Your task to perform on an android device: Go to battery settings Image 0: 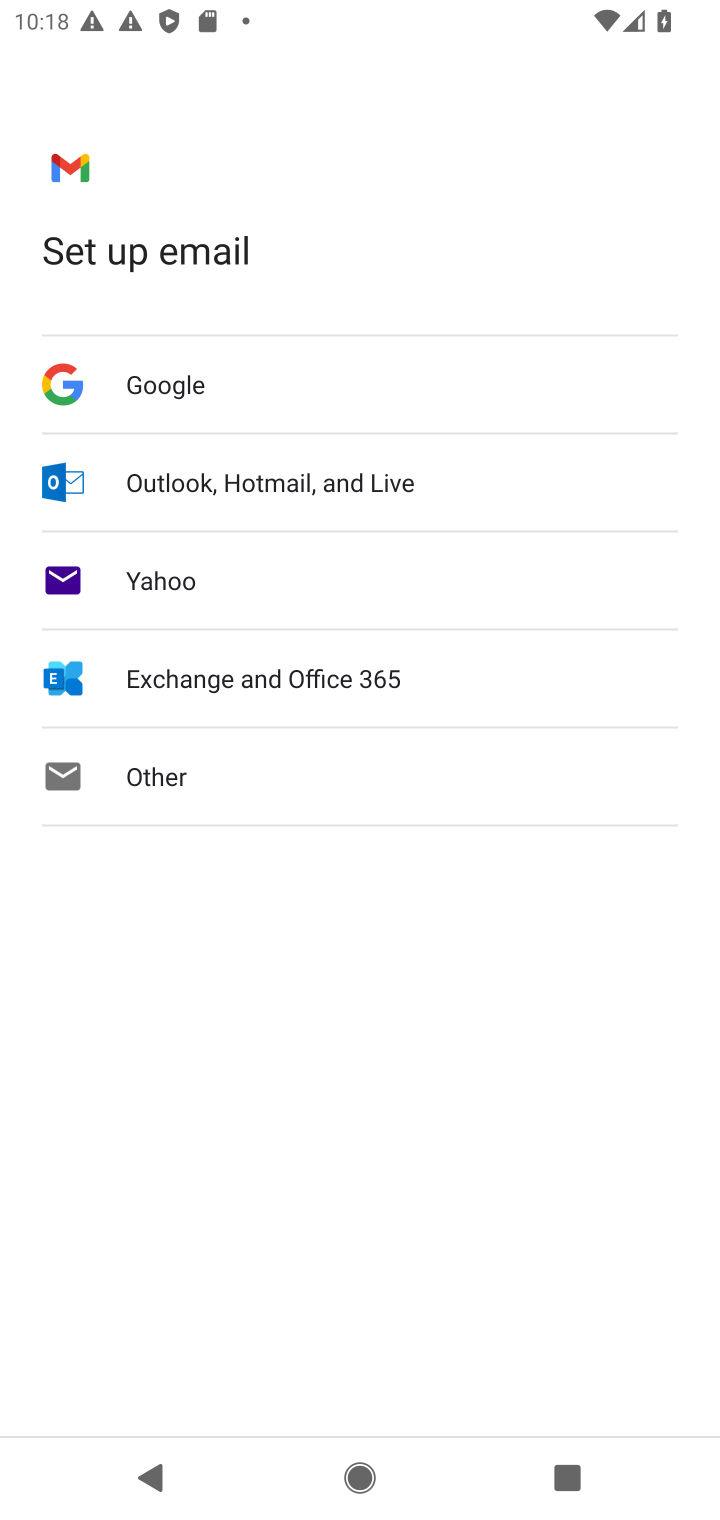
Step 0: press home button
Your task to perform on an android device: Go to battery settings Image 1: 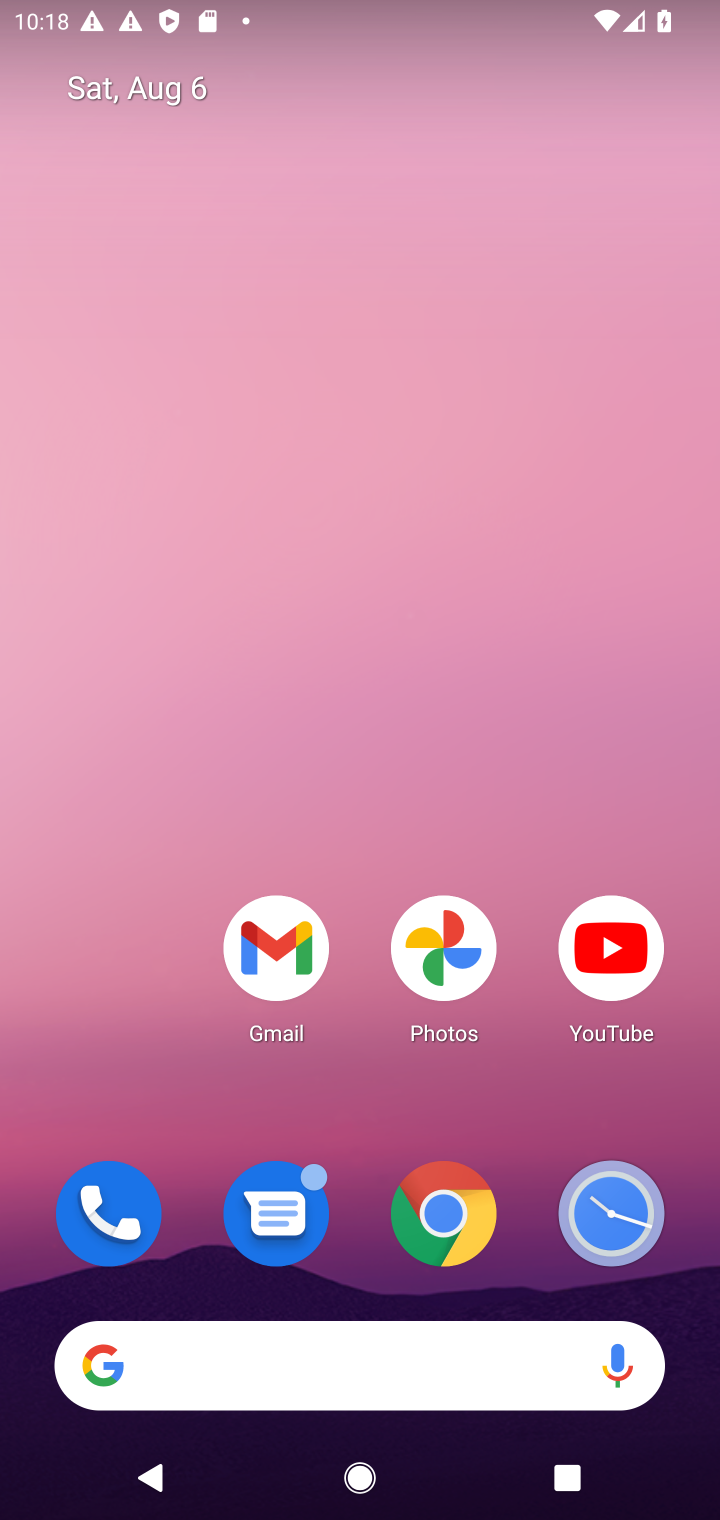
Step 1: drag from (415, 797) to (605, 74)
Your task to perform on an android device: Go to battery settings Image 2: 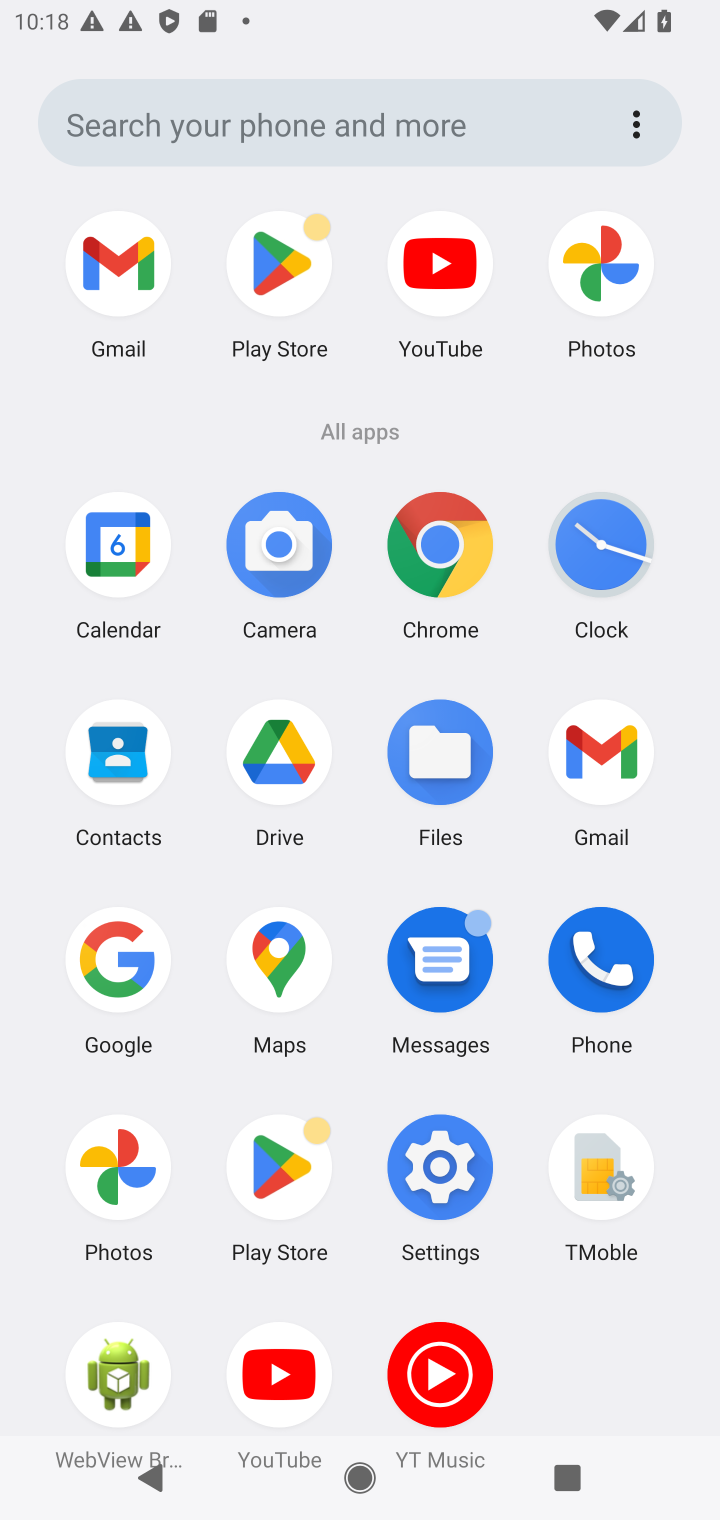
Step 2: click (450, 1170)
Your task to perform on an android device: Go to battery settings Image 3: 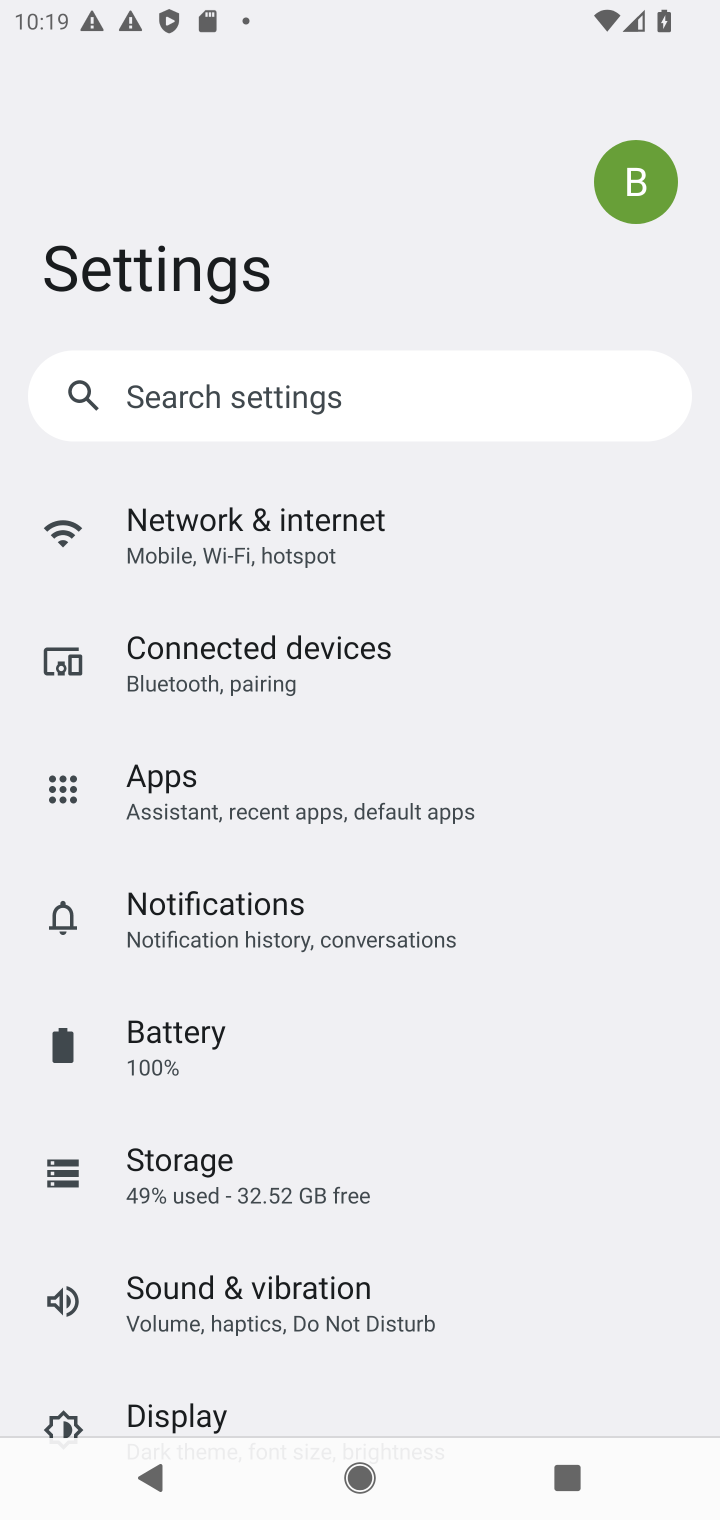
Step 3: click (243, 1067)
Your task to perform on an android device: Go to battery settings Image 4: 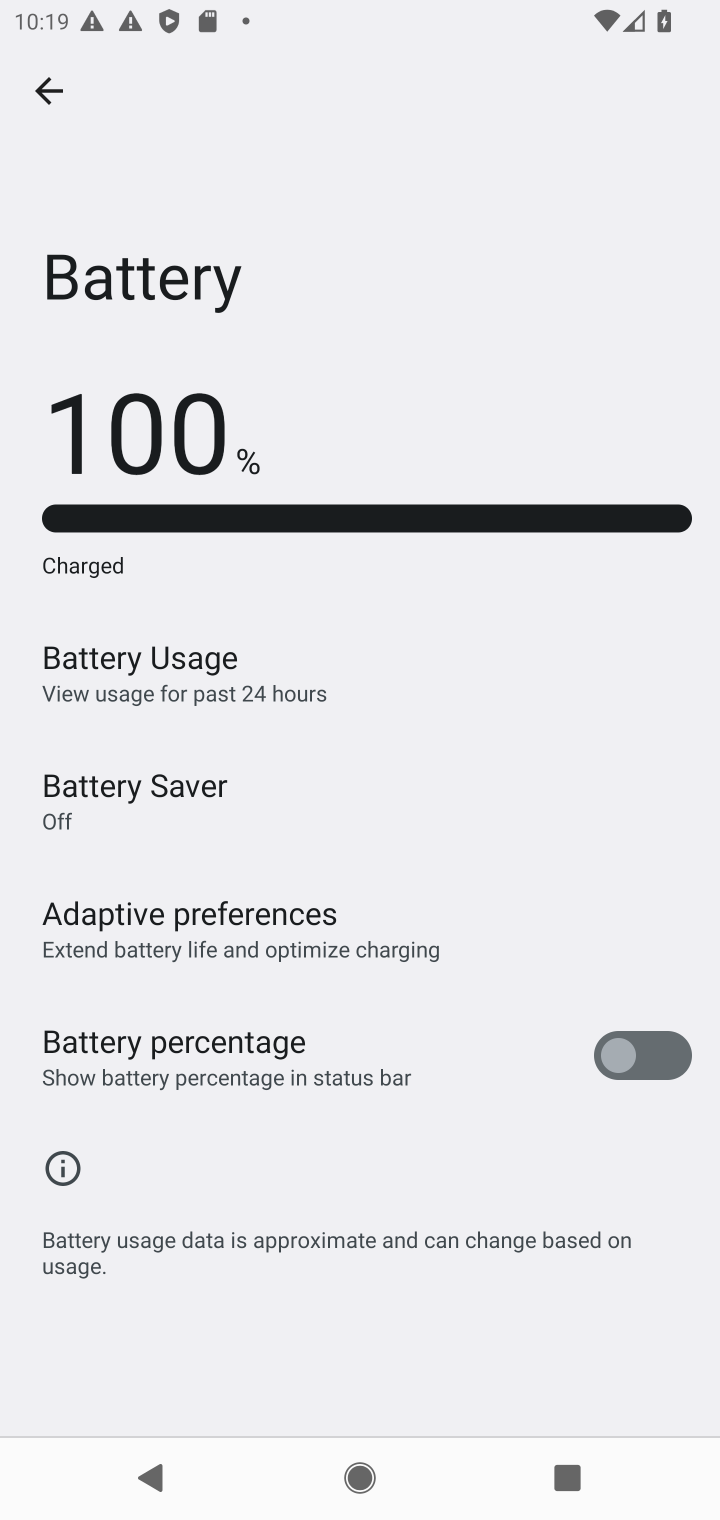
Step 4: task complete